Your task to perform on an android device: Search for "razer deathadder" on target, select the first entry, and add it to the cart. Image 0: 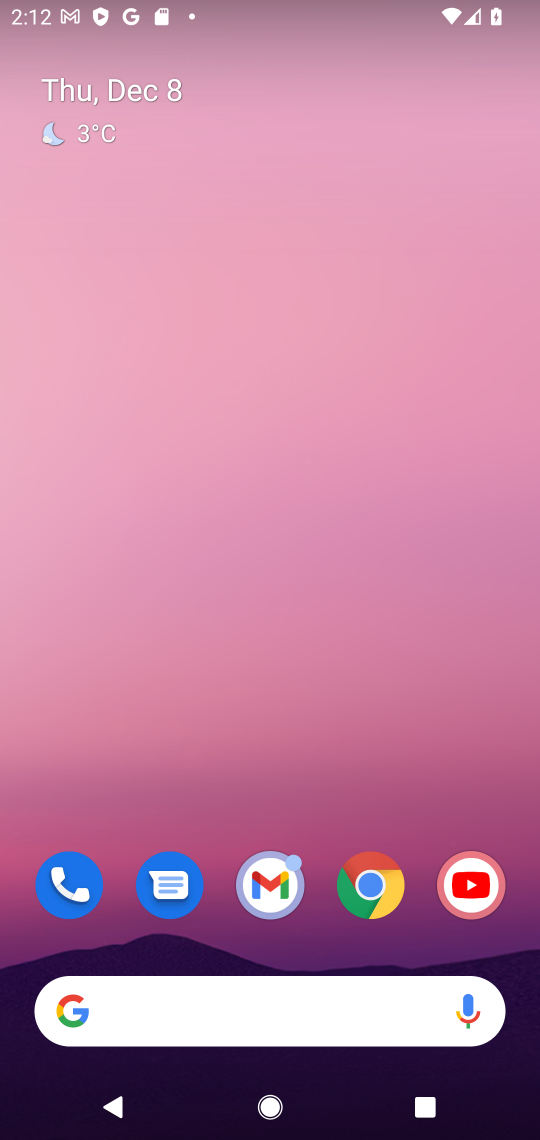
Step 0: task complete